Your task to perform on an android device: Open maps Image 0: 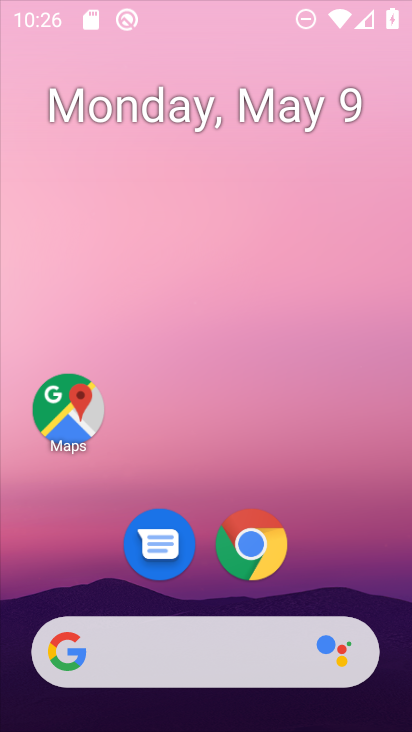
Step 0: click (246, 544)
Your task to perform on an android device: Open maps Image 1: 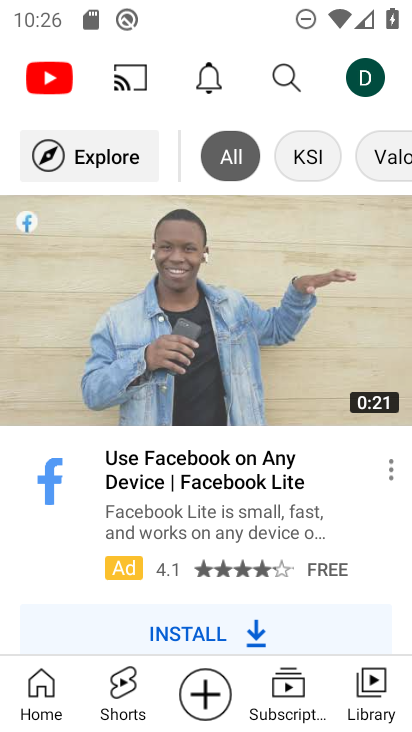
Step 1: press home button
Your task to perform on an android device: Open maps Image 2: 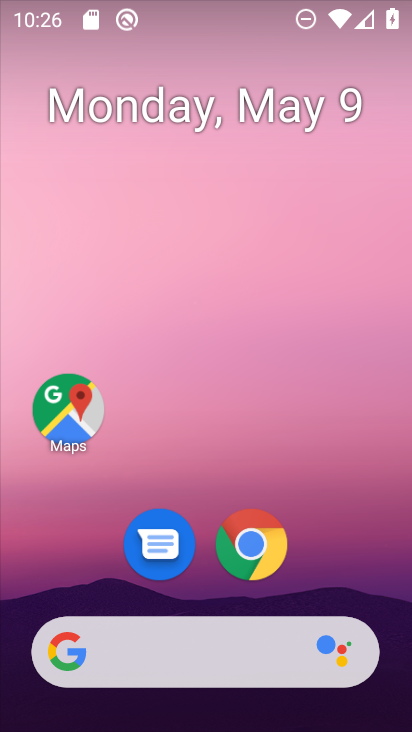
Step 2: click (65, 410)
Your task to perform on an android device: Open maps Image 3: 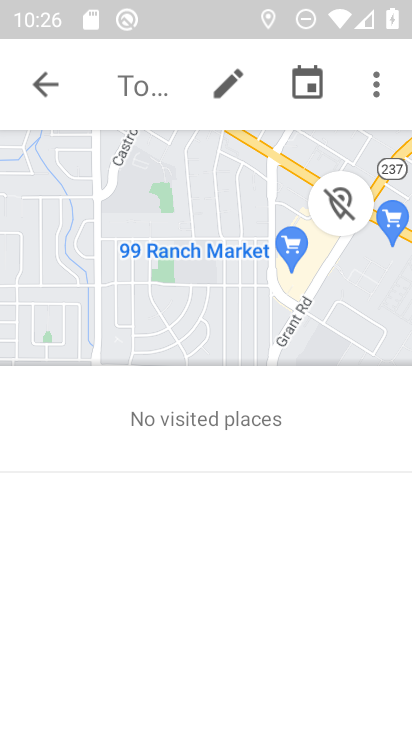
Step 3: click (48, 82)
Your task to perform on an android device: Open maps Image 4: 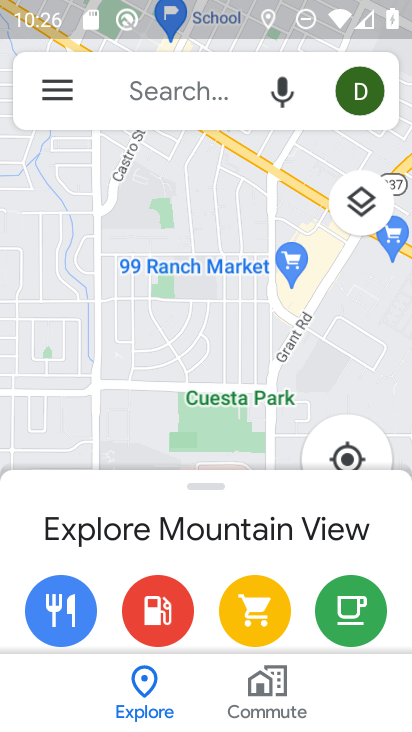
Step 4: task complete